Your task to perform on an android device: Is it going to rain tomorrow? Image 0: 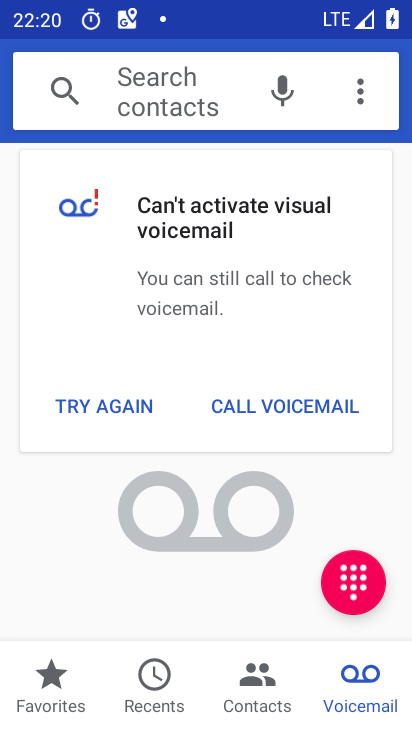
Step 0: press home button
Your task to perform on an android device: Is it going to rain tomorrow? Image 1: 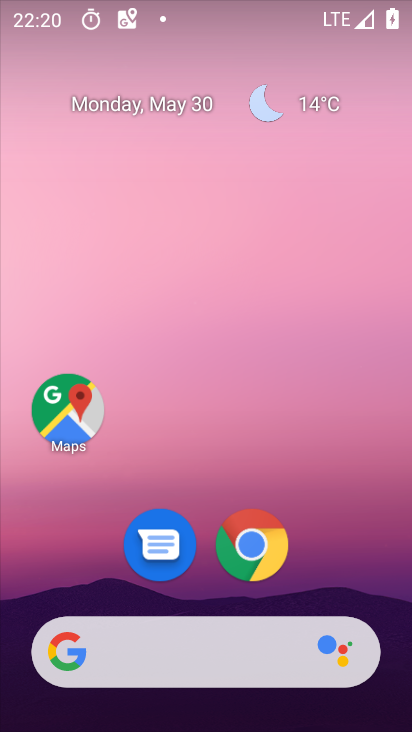
Step 1: click (318, 96)
Your task to perform on an android device: Is it going to rain tomorrow? Image 2: 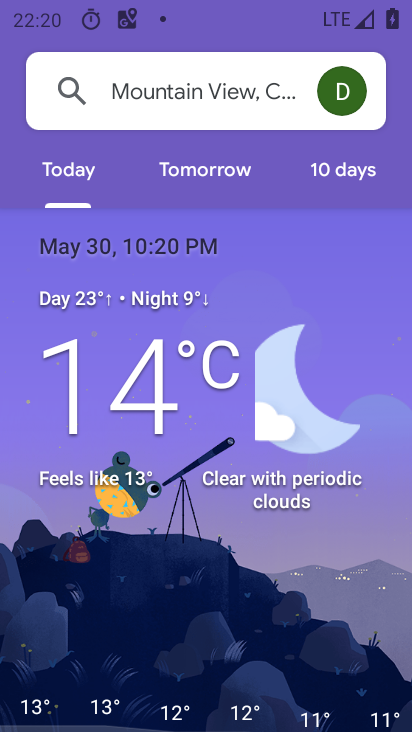
Step 2: click (235, 167)
Your task to perform on an android device: Is it going to rain tomorrow? Image 3: 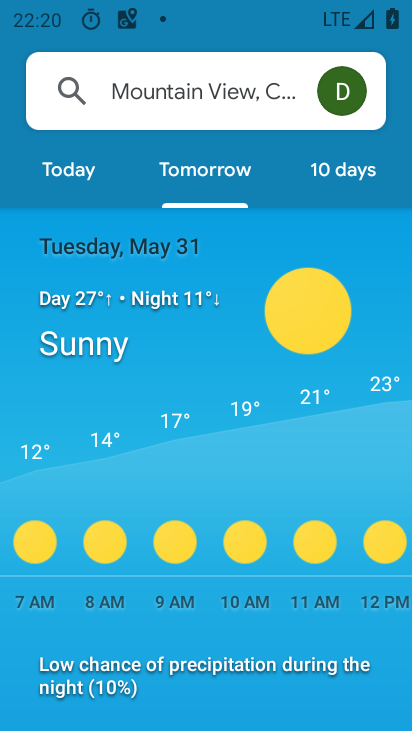
Step 3: click (235, 167)
Your task to perform on an android device: Is it going to rain tomorrow? Image 4: 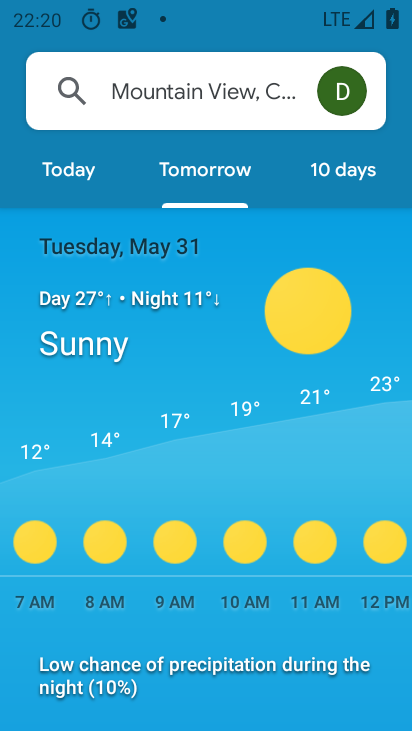
Step 4: task complete